Your task to perform on an android device: Show me popular games on the Play Store Image 0: 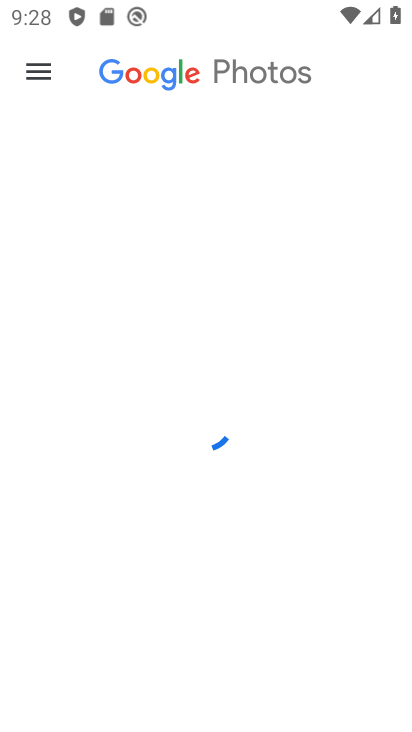
Step 0: press home button
Your task to perform on an android device: Show me popular games on the Play Store Image 1: 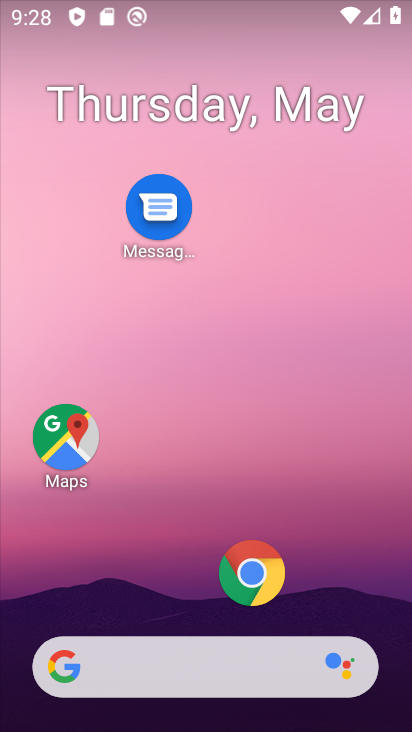
Step 1: drag from (210, 626) to (255, 67)
Your task to perform on an android device: Show me popular games on the Play Store Image 2: 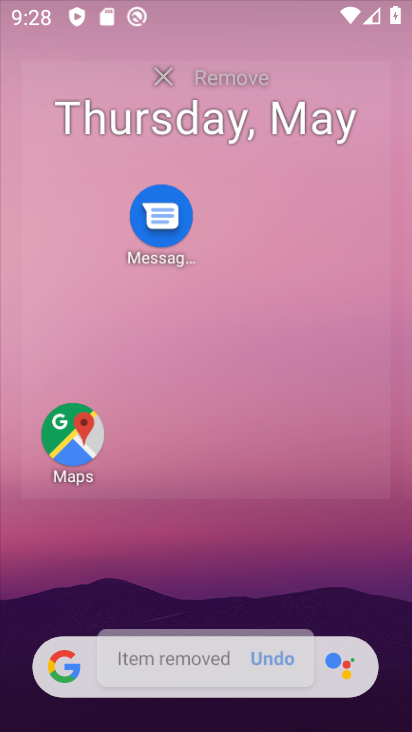
Step 2: click (226, 596)
Your task to perform on an android device: Show me popular games on the Play Store Image 3: 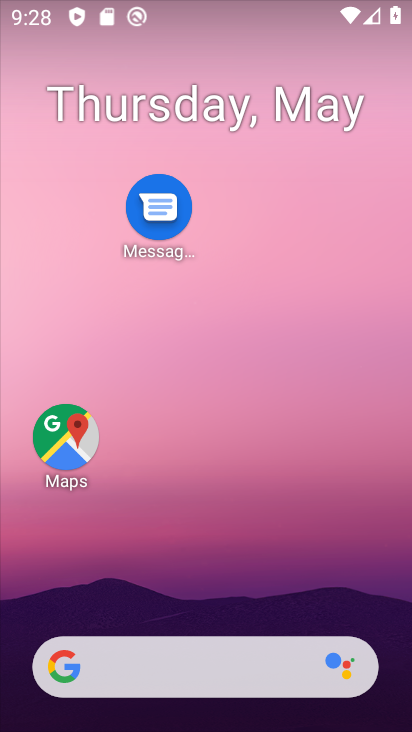
Step 3: drag from (226, 596) to (403, 85)
Your task to perform on an android device: Show me popular games on the Play Store Image 4: 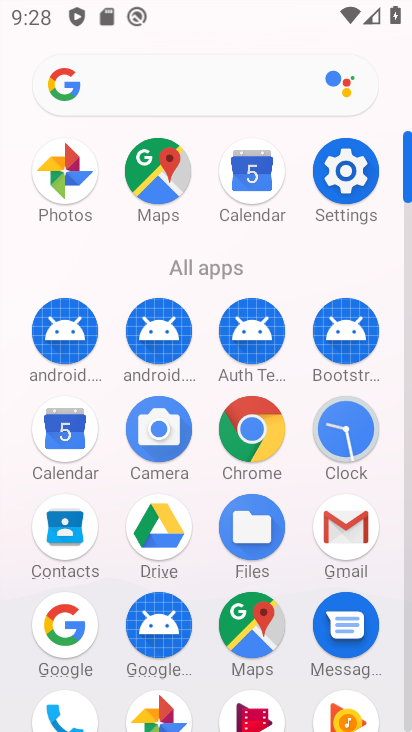
Step 4: click (199, 515)
Your task to perform on an android device: Show me popular games on the Play Store Image 5: 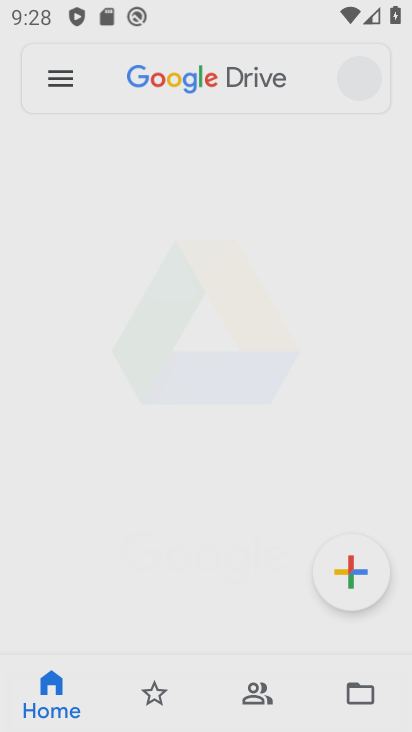
Step 5: press home button
Your task to perform on an android device: Show me popular games on the Play Store Image 6: 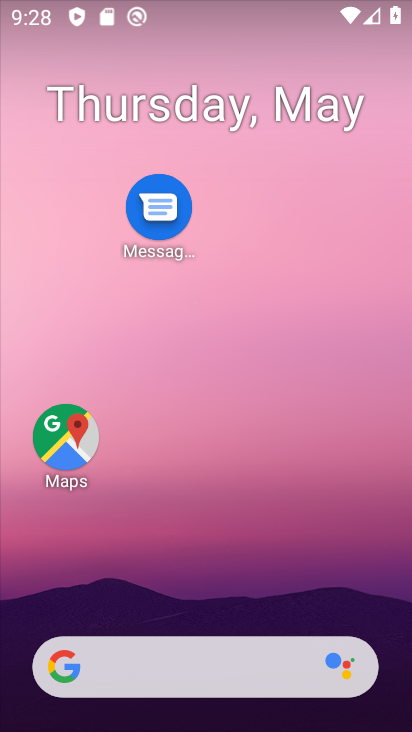
Step 6: drag from (215, 626) to (158, 164)
Your task to perform on an android device: Show me popular games on the Play Store Image 7: 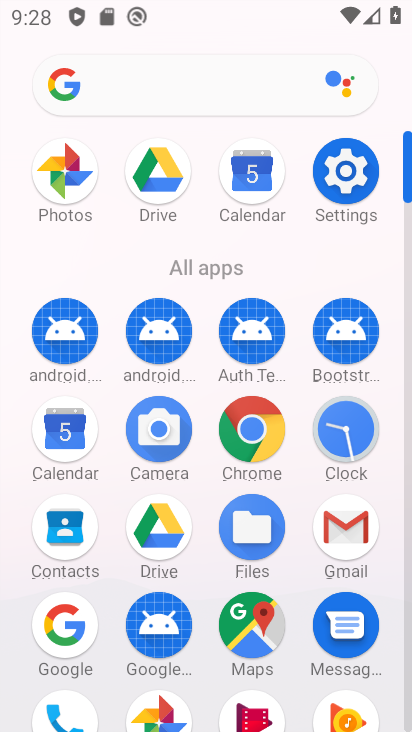
Step 7: drag from (202, 677) to (182, 367)
Your task to perform on an android device: Show me popular games on the Play Store Image 8: 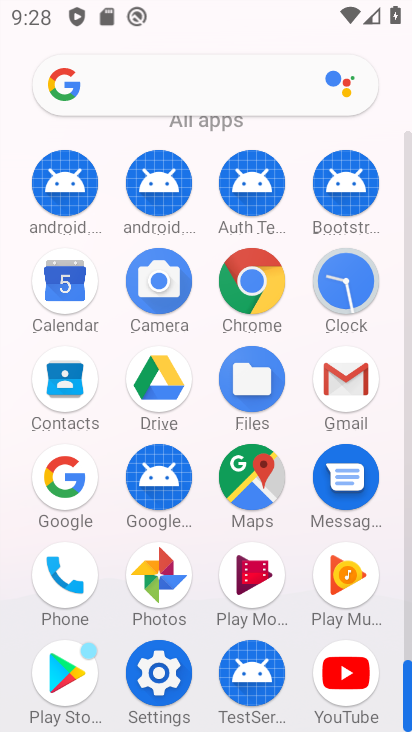
Step 8: click (67, 664)
Your task to perform on an android device: Show me popular games on the Play Store Image 9: 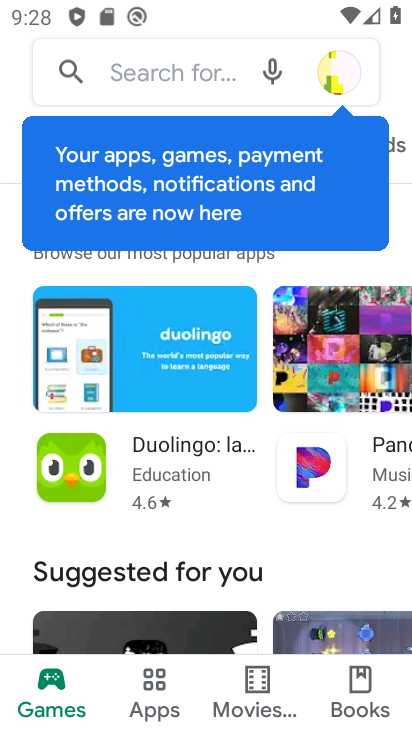
Step 9: drag from (212, 558) to (254, 78)
Your task to perform on an android device: Show me popular games on the Play Store Image 10: 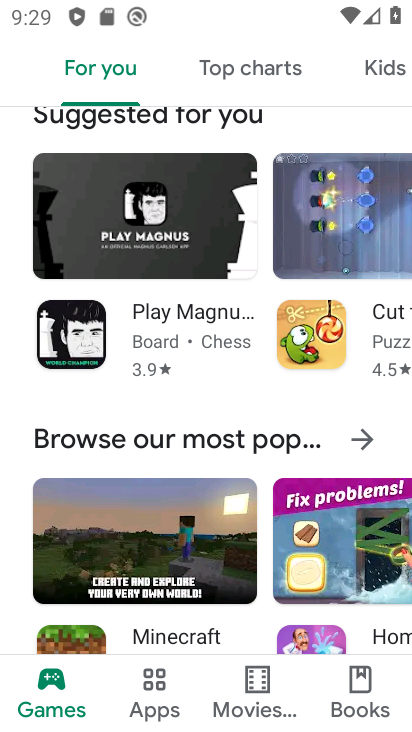
Step 10: click (254, 78)
Your task to perform on an android device: Show me popular games on the Play Store Image 11: 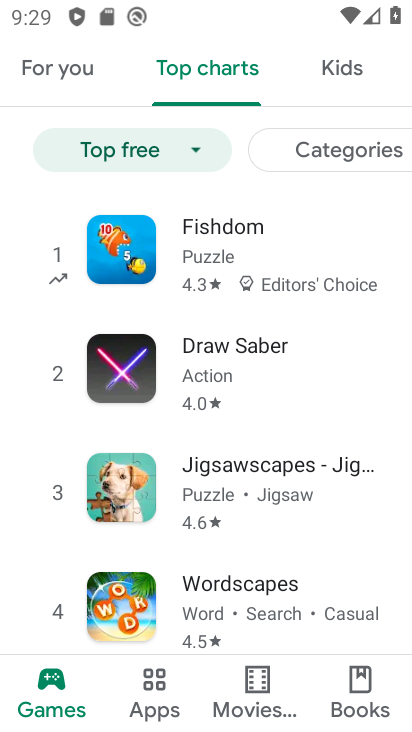
Step 11: click (49, 679)
Your task to perform on an android device: Show me popular games on the Play Store Image 12: 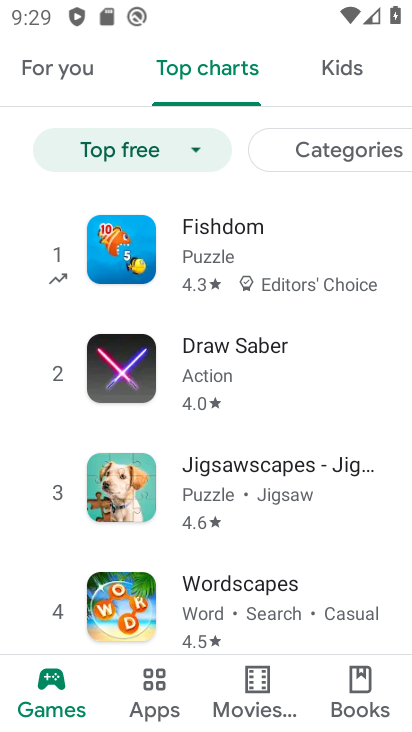
Step 12: click (58, 56)
Your task to perform on an android device: Show me popular games on the Play Store Image 13: 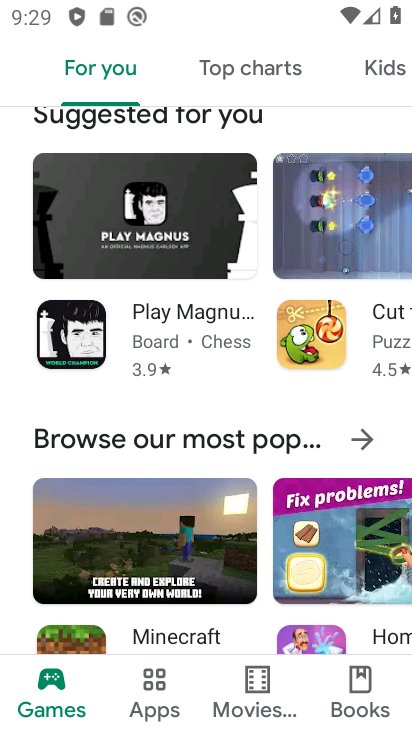
Step 13: task complete